Your task to perform on an android device: install app "Google Home" Image 0: 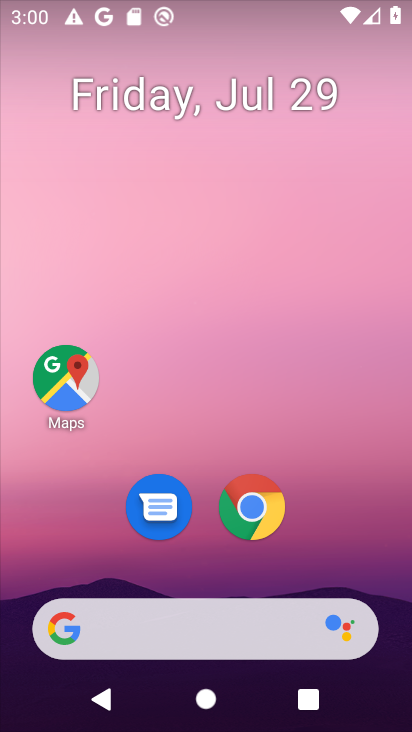
Step 0: click (172, 627)
Your task to perform on an android device: install app "Google Home" Image 1: 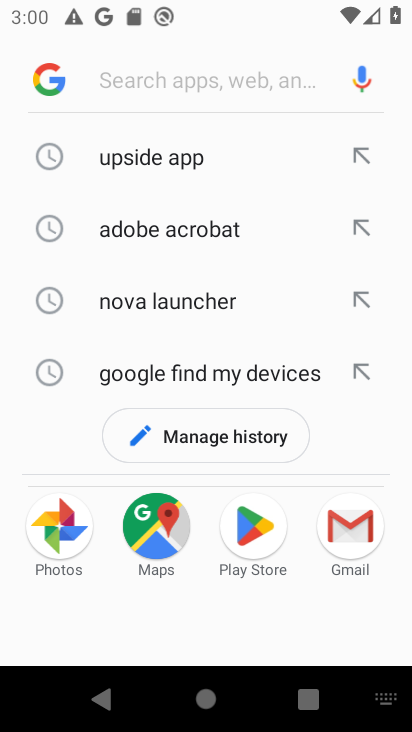
Step 1: type "google home"
Your task to perform on an android device: install app "Google Home" Image 2: 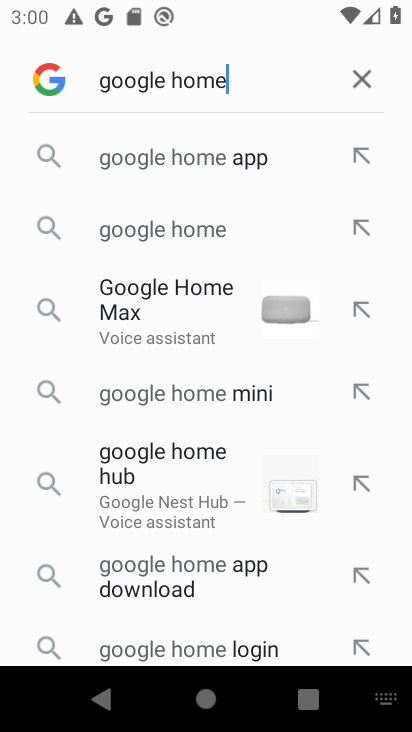
Step 2: click (186, 153)
Your task to perform on an android device: install app "Google Home" Image 3: 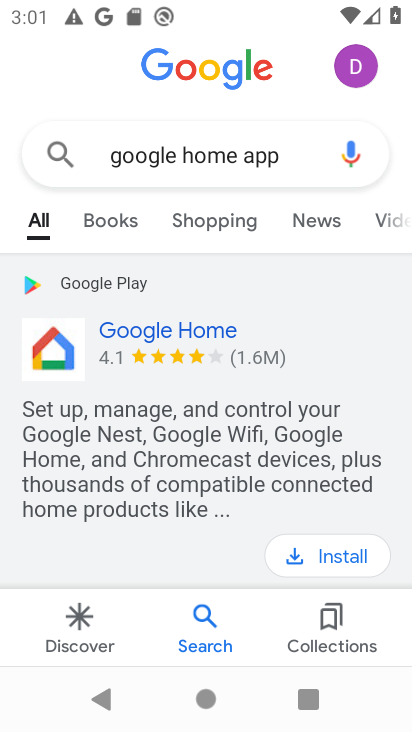
Step 3: click (317, 560)
Your task to perform on an android device: install app "Google Home" Image 4: 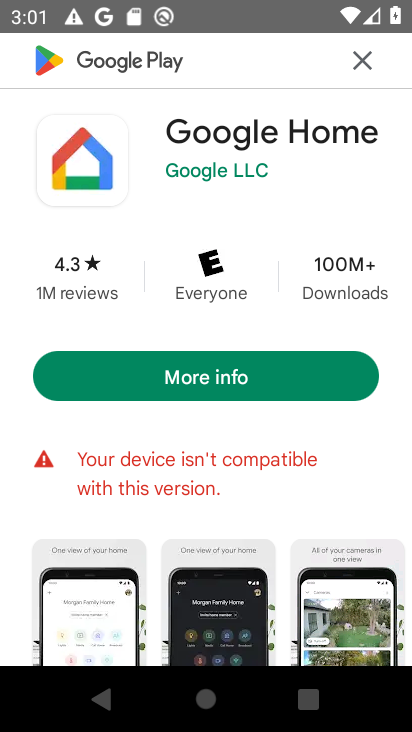
Step 4: task complete